Your task to perform on an android device: Open the calendar and show me this week's events? Image 0: 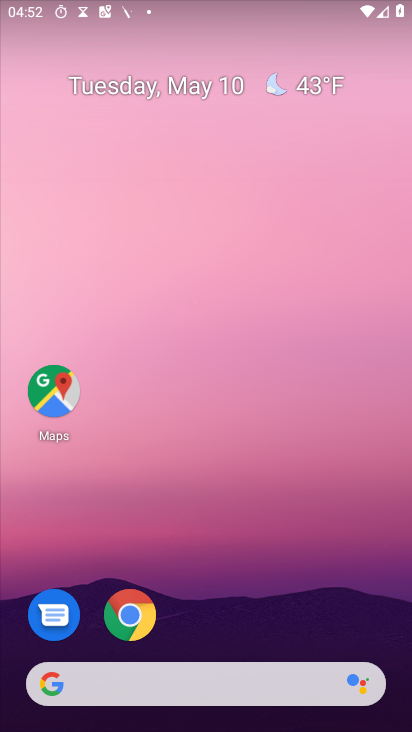
Step 0: drag from (312, 627) to (297, 3)
Your task to perform on an android device: Open the calendar and show me this week's events? Image 1: 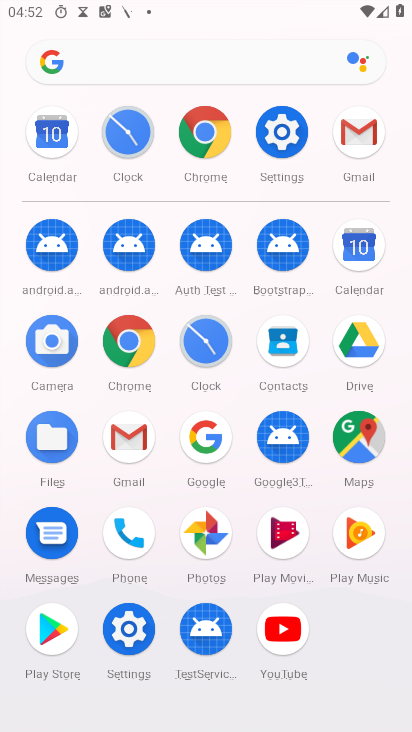
Step 1: click (357, 252)
Your task to perform on an android device: Open the calendar and show me this week's events? Image 2: 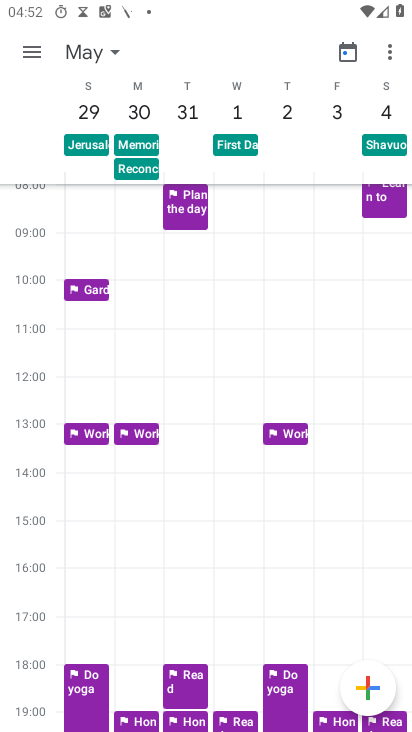
Step 2: click (113, 50)
Your task to perform on an android device: Open the calendar and show me this week's events? Image 3: 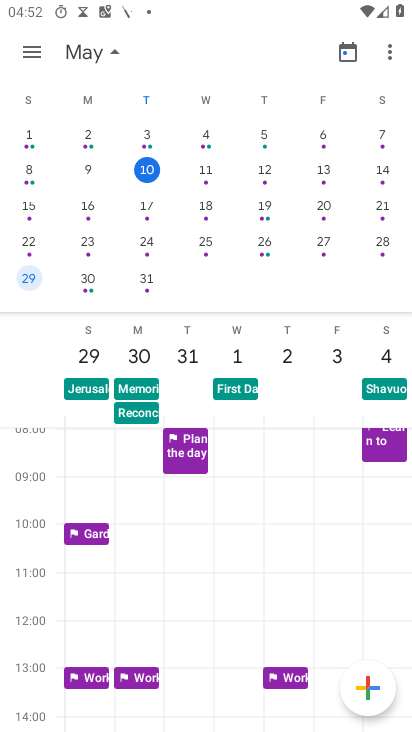
Step 3: click (206, 165)
Your task to perform on an android device: Open the calendar and show me this week's events? Image 4: 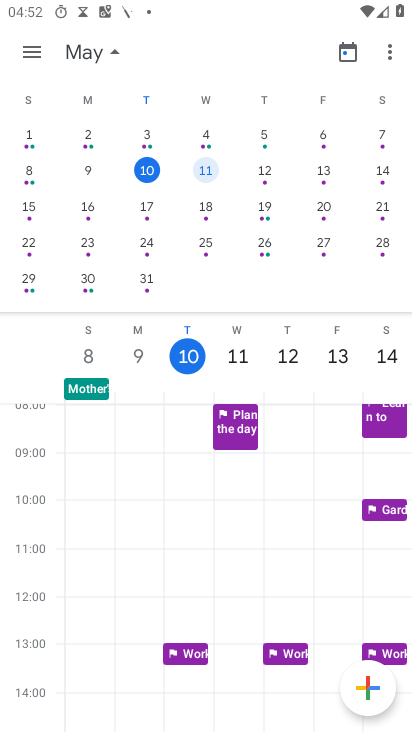
Step 4: click (31, 51)
Your task to perform on an android device: Open the calendar and show me this week's events? Image 5: 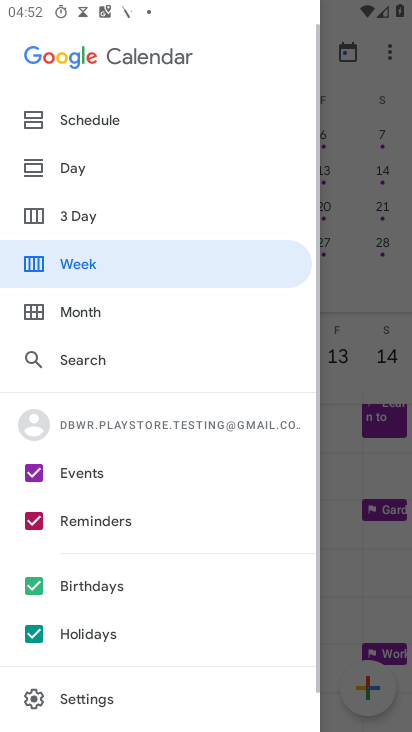
Step 5: click (88, 254)
Your task to perform on an android device: Open the calendar and show me this week's events? Image 6: 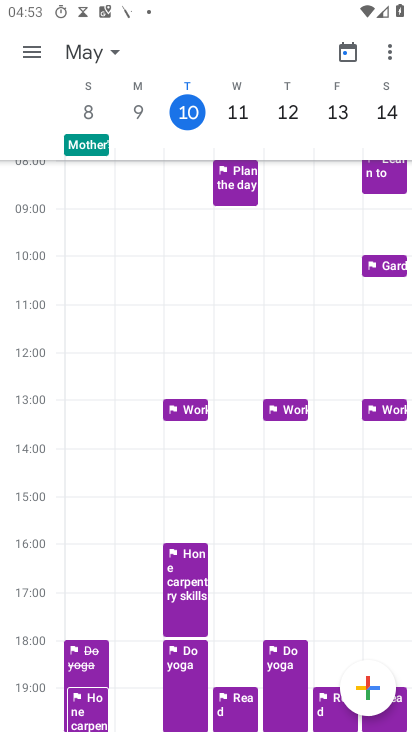
Step 6: task complete